Your task to perform on an android device: Do I have any events tomorrow? Image 0: 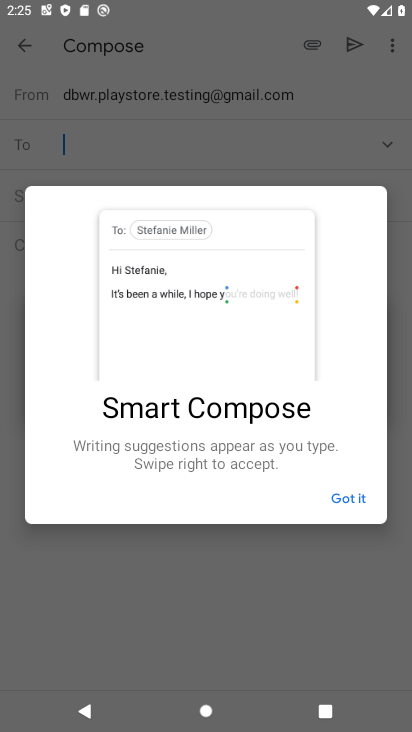
Step 0: press home button
Your task to perform on an android device: Do I have any events tomorrow? Image 1: 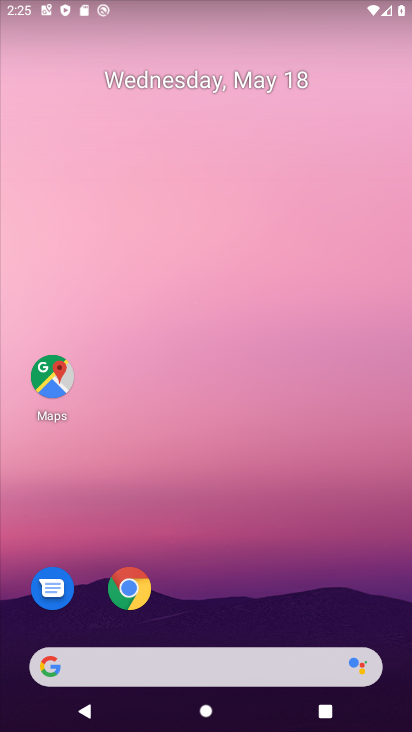
Step 1: drag from (293, 601) to (314, 457)
Your task to perform on an android device: Do I have any events tomorrow? Image 2: 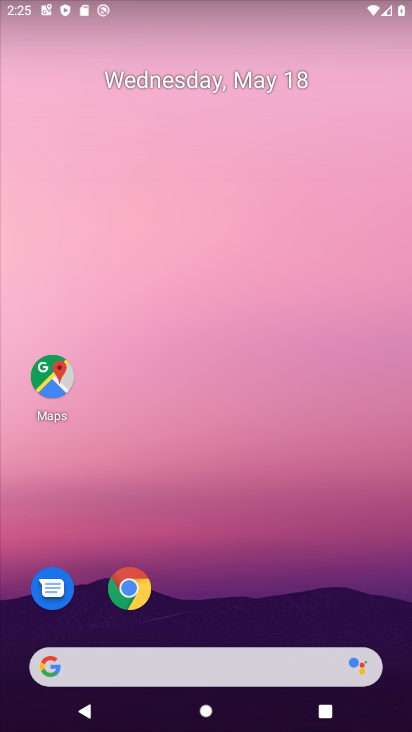
Step 2: drag from (261, 584) to (253, 380)
Your task to perform on an android device: Do I have any events tomorrow? Image 3: 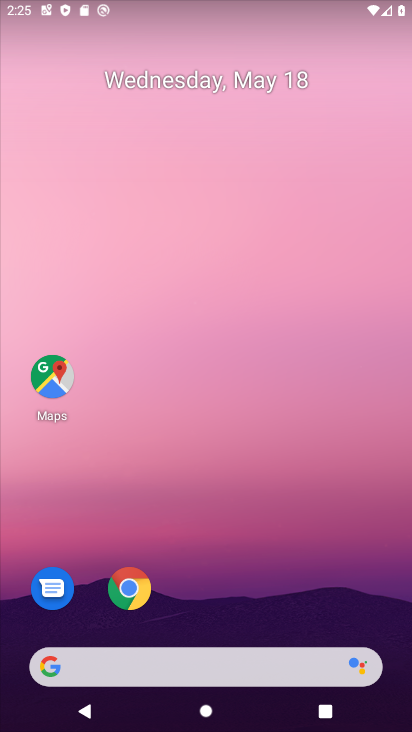
Step 3: drag from (282, 562) to (323, 145)
Your task to perform on an android device: Do I have any events tomorrow? Image 4: 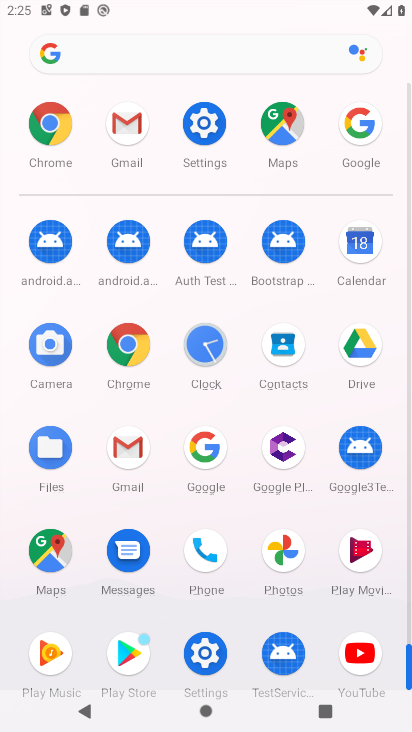
Step 4: click (360, 242)
Your task to perform on an android device: Do I have any events tomorrow? Image 5: 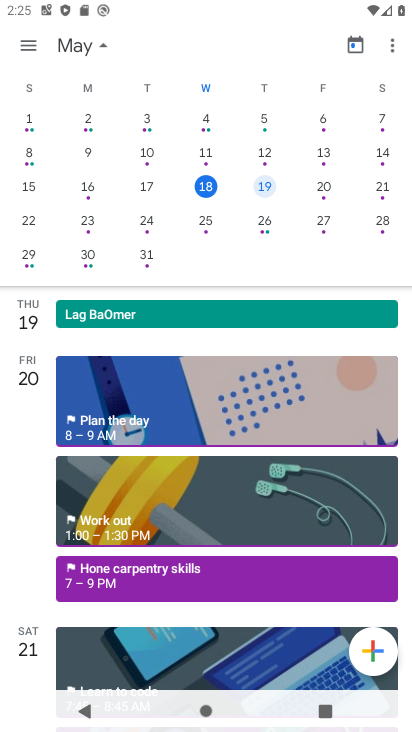
Step 5: click (266, 187)
Your task to perform on an android device: Do I have any events tomorrow? Image 6: 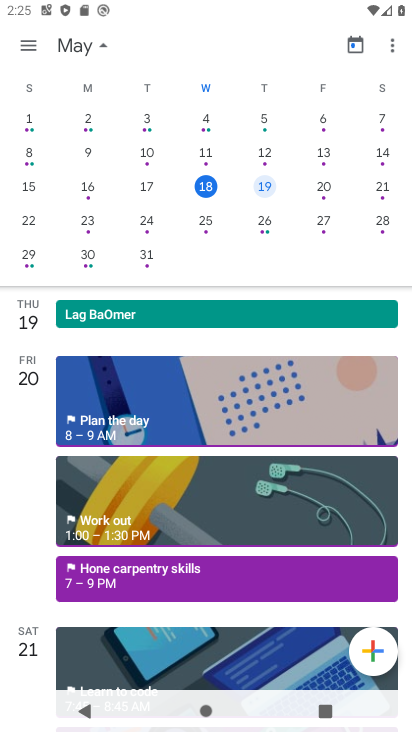
Step 6: click (167, 309)
Your task to perform on an android device: Do I have any events tomorrow? Image 7: 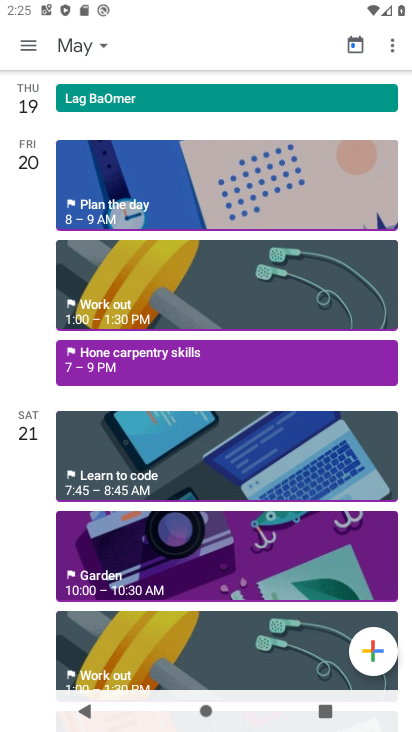
Step 7: click (167, 106)
Your task to perform on an android device: Do I have any events tomorrow? Image 8: 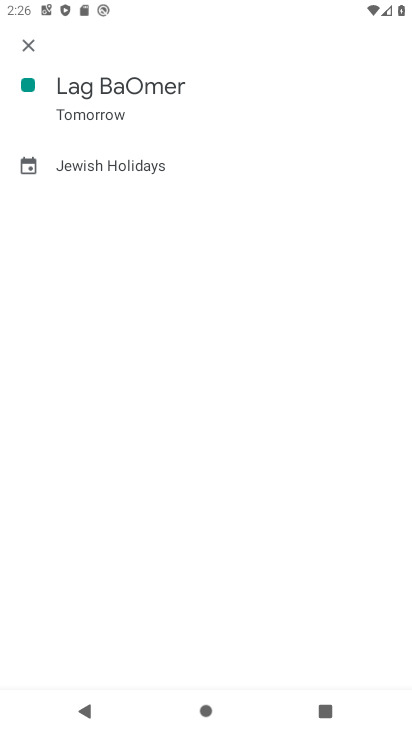
Step 8: task complete